Your task to perform on an android device: Show me popular games on the Play Store Image 0: 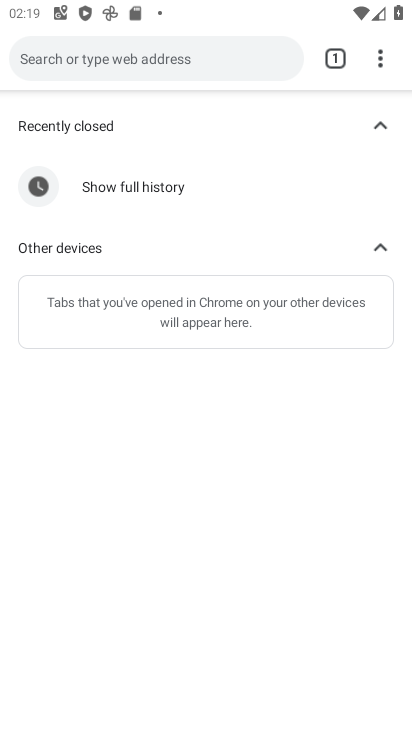
Step 0: press home button
Your task to perform on an android device: Show me popular games on the Play Store Image 1: 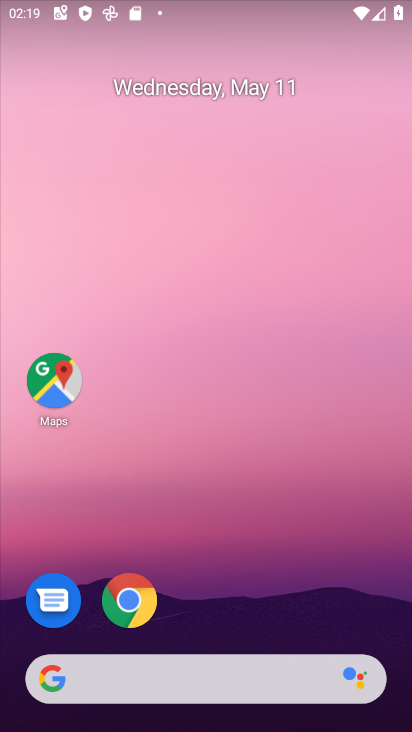
Step 1: drag from (297, 717) to (341, 3)
Your task to perform on an android device: Show me popular games on the Play Store Image 2: 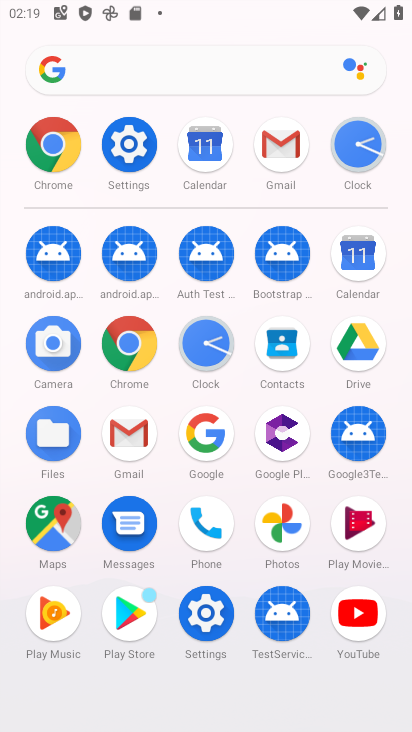
Step 2: click (134, 606)
Your task to perform on an android device: Show me popular games on the Play Store Image 3: 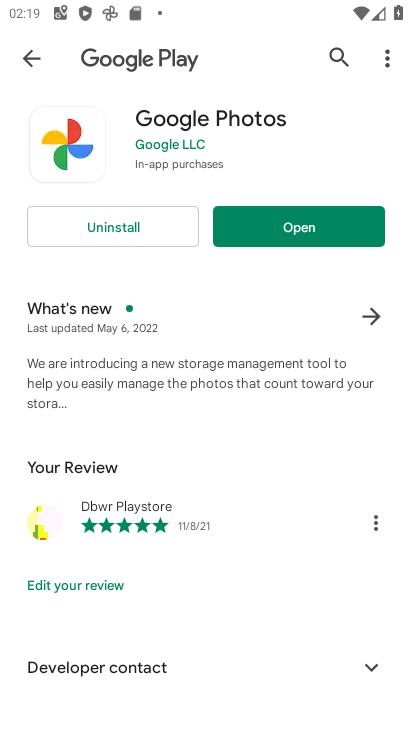
Step 3: click (35, 58)
Your task to perform on an android device: Show me popular games on the Play Store Image 4: 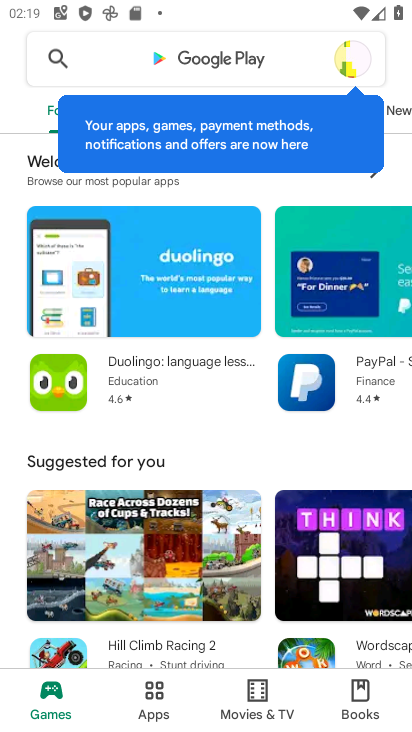
Step 4: task complete